Your task to perform on an android device: turn notification dots off Image 0: 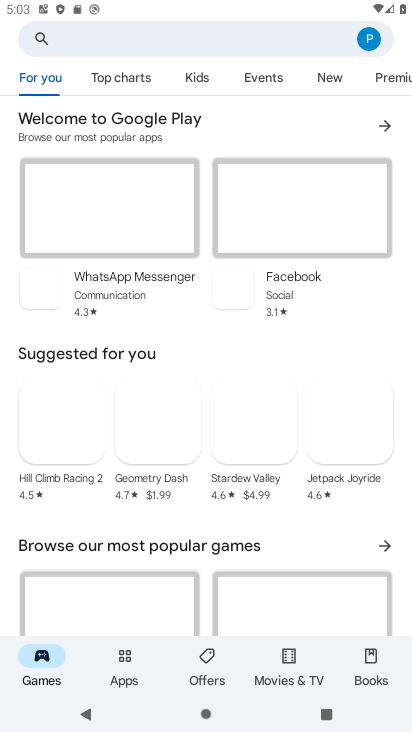
Step 0: press home button
Your task to perform on an android device: turn notification dots off Image 1: 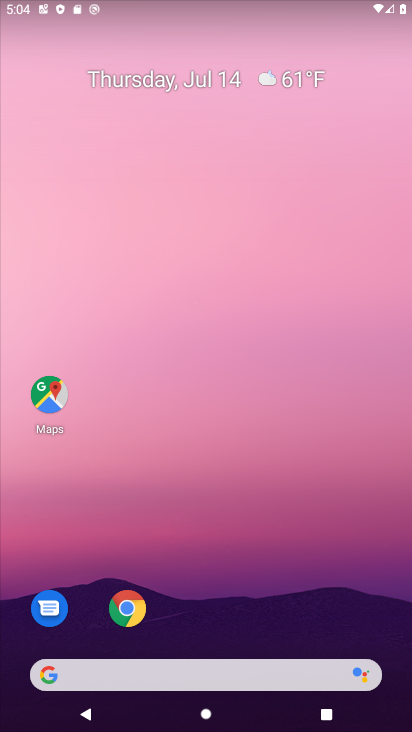
Step 1: drag from (277, 553) to (248, 0)
Your task to perform on an android device: turn notification dots off Image 2: 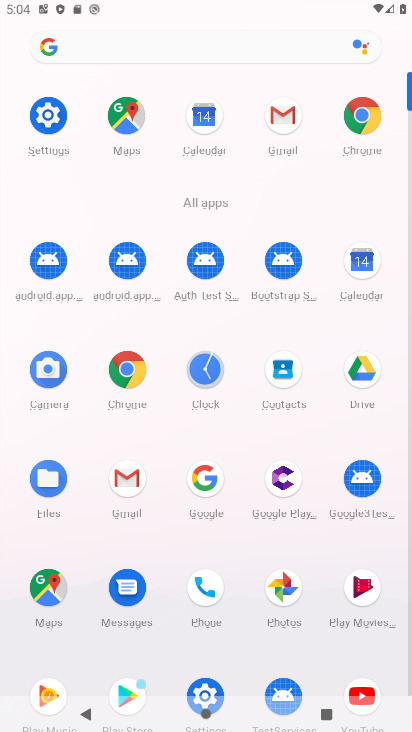
Step 2: click (49, 193)
Your task to perform on an android device: turn notification dots off Image 3: 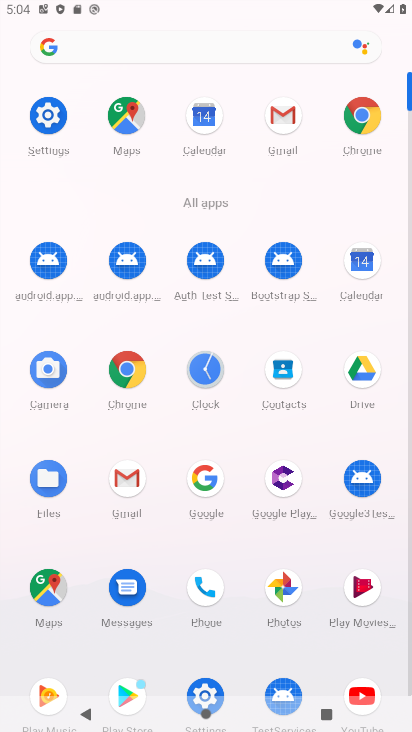
Step 3: click (46, 118)
Your task to perform on an android device: turn notification dots off Image 4: 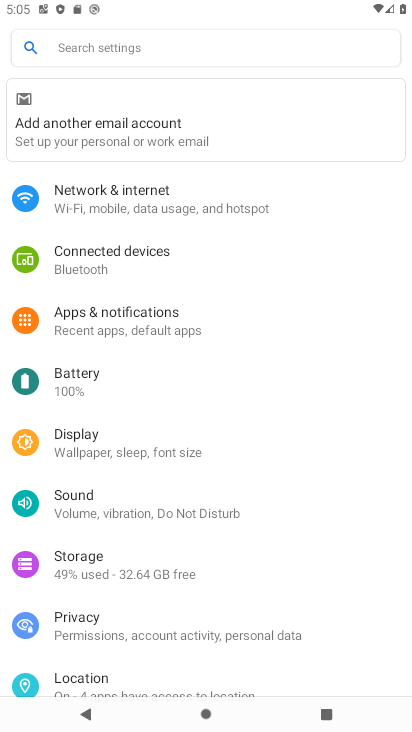
Step 4: click (134, 322)
Your task to perform on an android device: turn notification dots off Image 5: 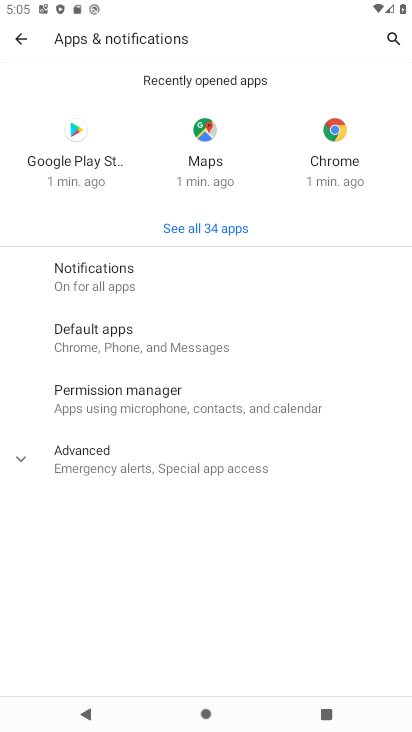
Step 5: click (114, 276)
Your task to perform on an android device: turn notification dots off Image 6: 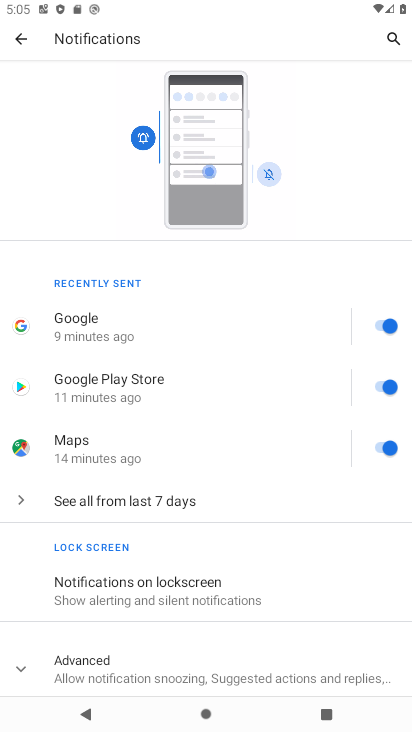
Step 6: drag from (161, 374) to (186, 189)
Your task to perform on an android device: turn notification dots off Image 7: 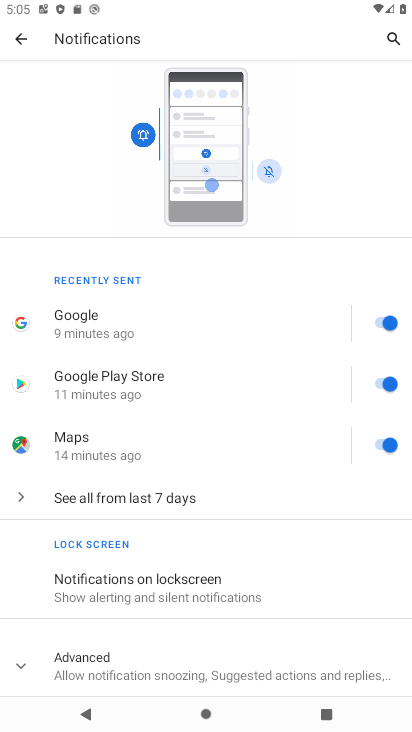
Step 7: click (111, 650)
Your task to perform on an android device: turn notification dots off Image 8: 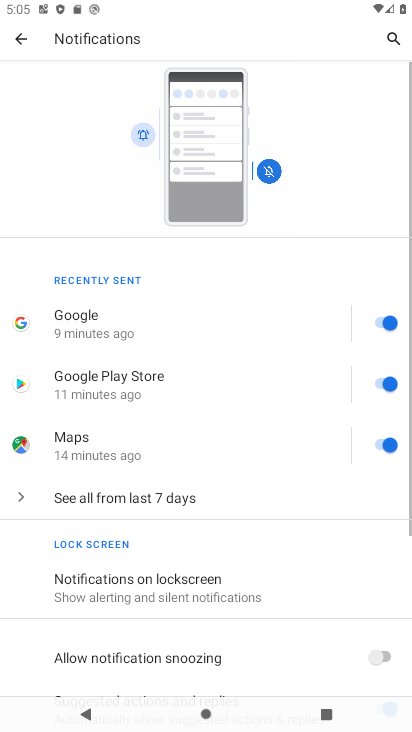
Step 8: drag from (238, 642) to (271, 221)
Your task to perform on an android device: turn notification dots off Image 9: 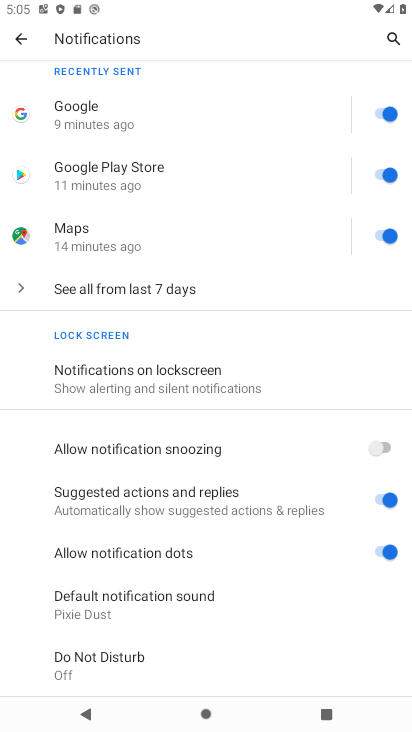
Step 9: click (393, 548)
Your task to perform on an android device: turn notification dots off Image 10: 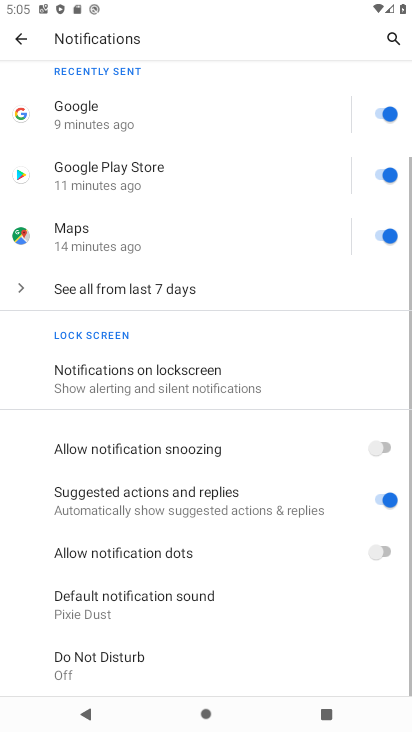
Step 10: task complete